Your task to perform on an android device: change the clock display to show seconds Image 0: 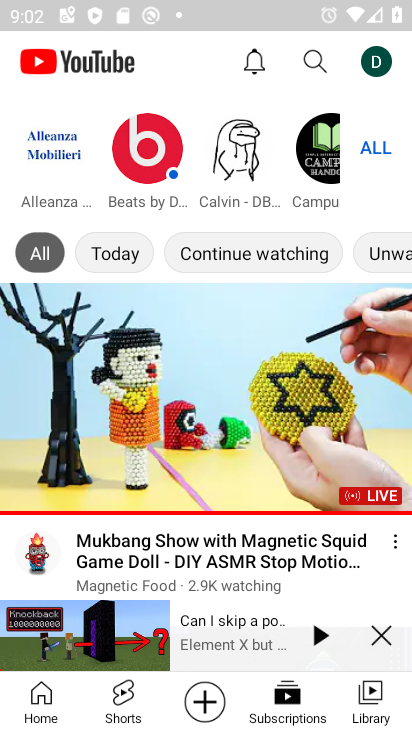
Step 0: press home button
Your task to perform on an android device: change the clock display to show seconds Image 1: 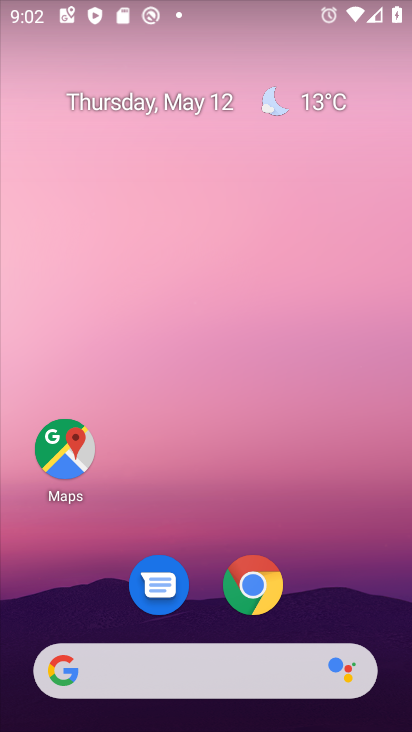
Step 1: drag from (243, 433) to (238, 42)
Your task to perform on an android device: change the clock display to show seconds Image 2: 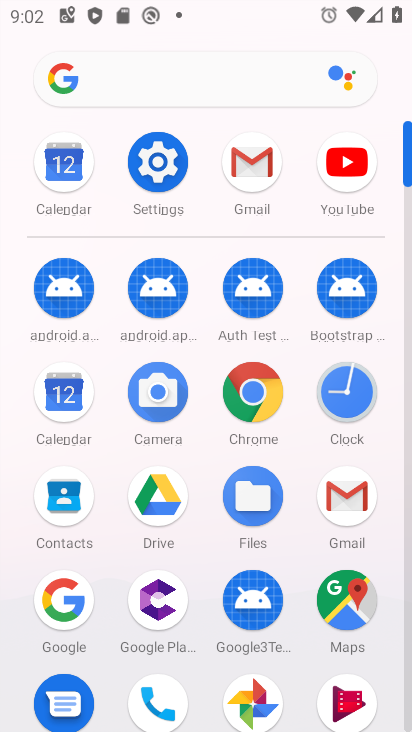
Step 2: click (163, 155)
Your task to perform on an android device: change the clock display to show seconds Image 3: 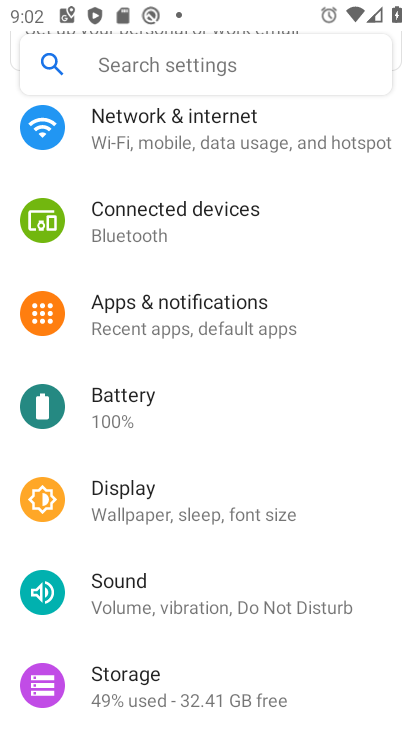
Step 3: press home button
Your task to perform on an android device: change the clock display to show seconds Image 4: 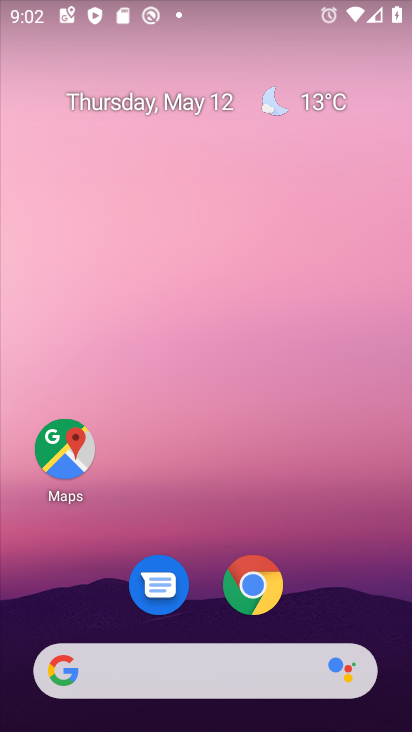
Step 4: drag from (186, 473) to (206, 57)
Your task to perform on an android device: change the clock display to show seconds Image 5: 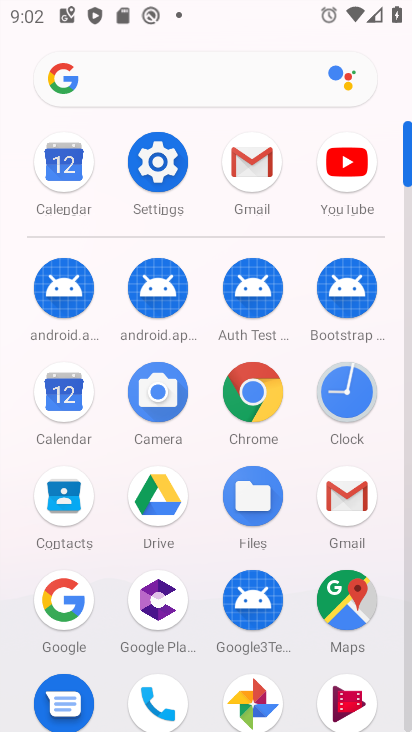
Step 5: click (336, 378)
Your task to perform on an android device: change the clock display to show seconds Image 6: 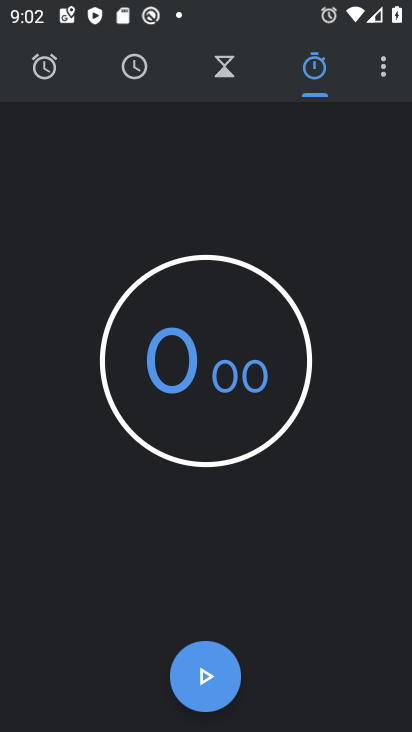
Step 6: click (388, 69)
Your task to perform on an android device: change the clock display to show seconds Image 7: 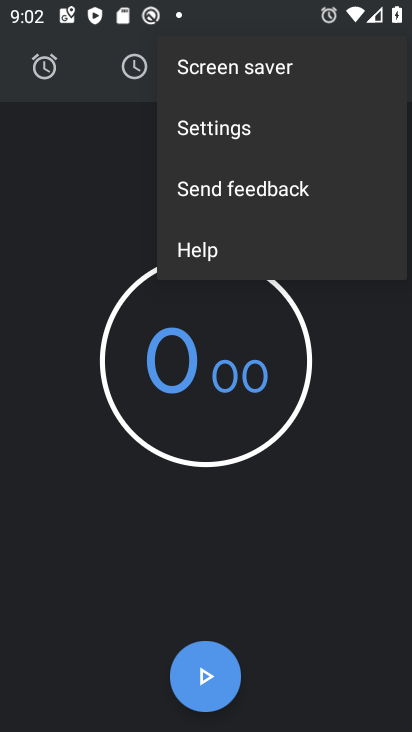
Step 7: click (320, 132)
Your task to perform on an android device: change the clock display to show seconds Image 8: 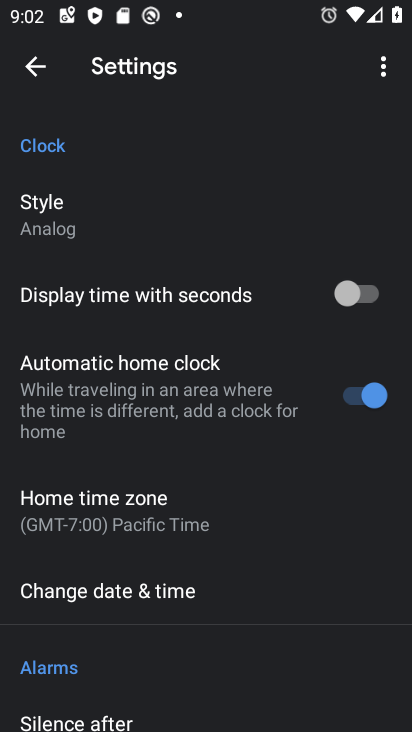
Step 8: click (376, 297)
Your task to perform on an android device: change the clock display to show seconds Image 9: 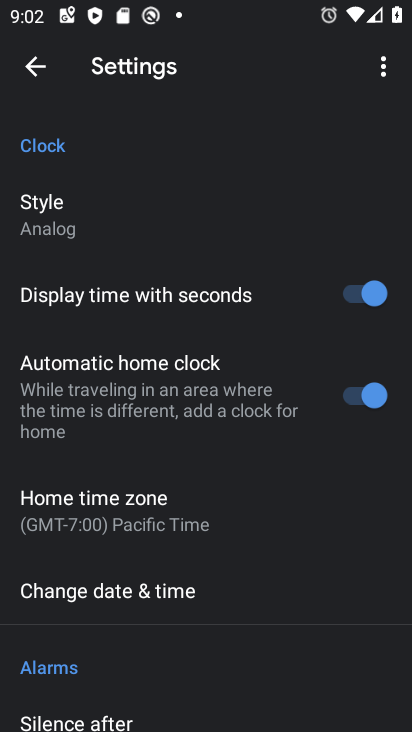
Step 9: task complete